Your task to perform on an android device: refresh tabs in the chrome app Image 0: 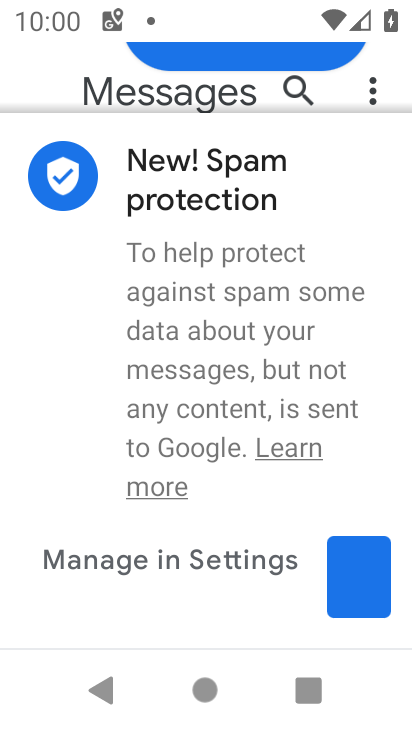
Step 0: press home button
Your task to perform on an android device: refresh tabs in the chrome app Image 1: 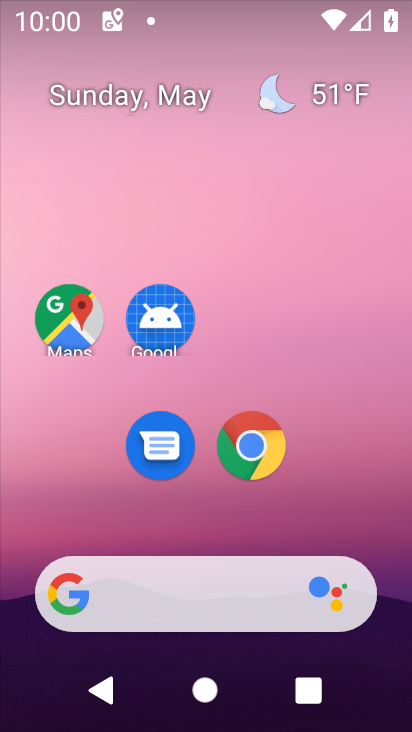
Step 1: click (255, 450)
Your task to perform on an android device: refresh tabs in the chrome app Image 2: 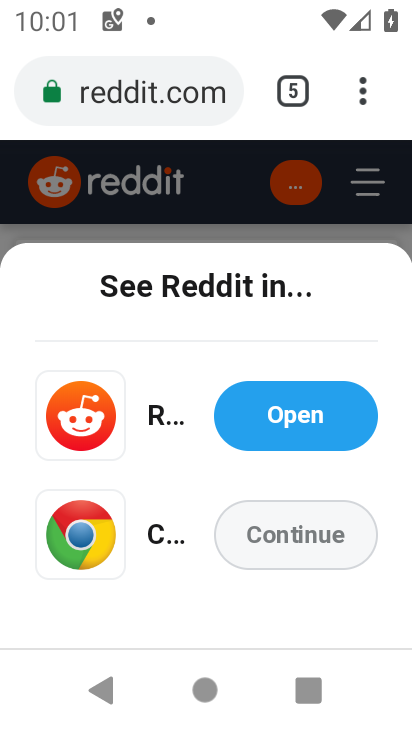
Step 2: click (367, 85)
Your task to perform on an android device: refresh tabs in the chrome app Image 3: 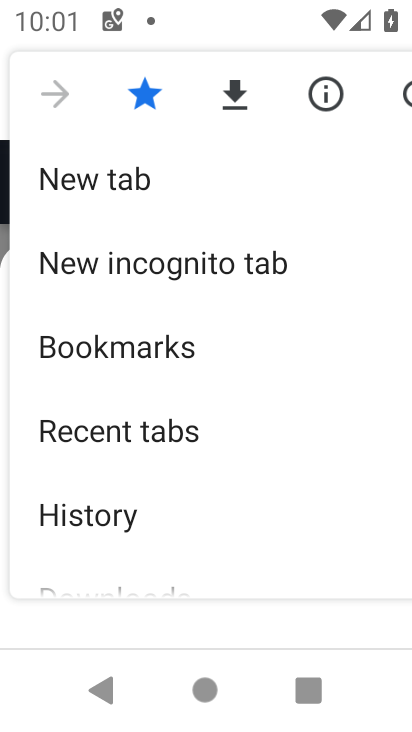
Step 3: click (407, 91)
Your task to perform on an android device: refresh tabs in the chrome app Image 4: 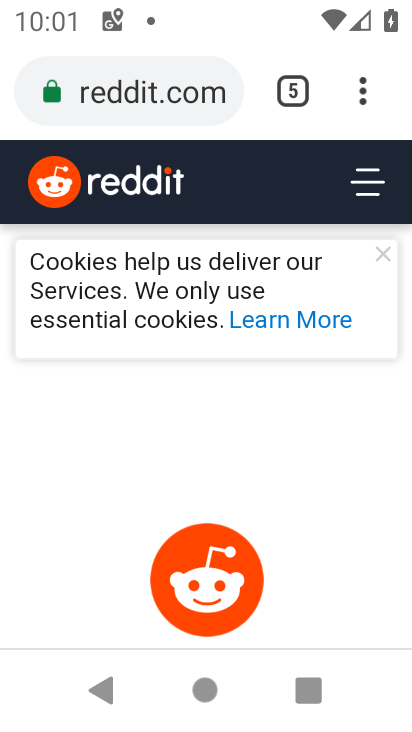
Step 4: task complete